Your task to perform on an android device: delete browsing data in the chrome app Image 0: 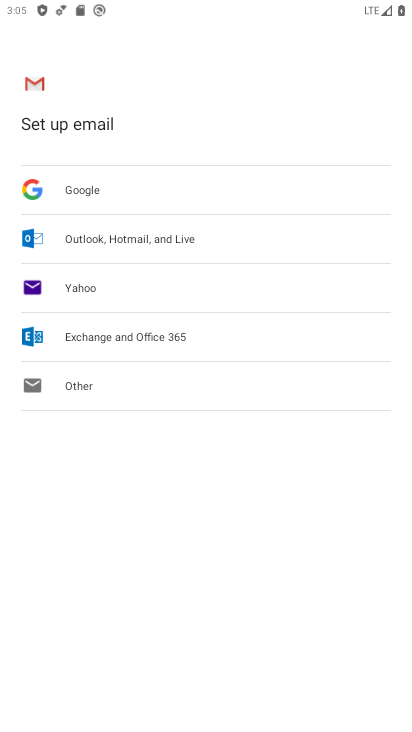
Step 0: press home button
Your task to perform on an android device: delete browsing data in the chrome app Image 1: 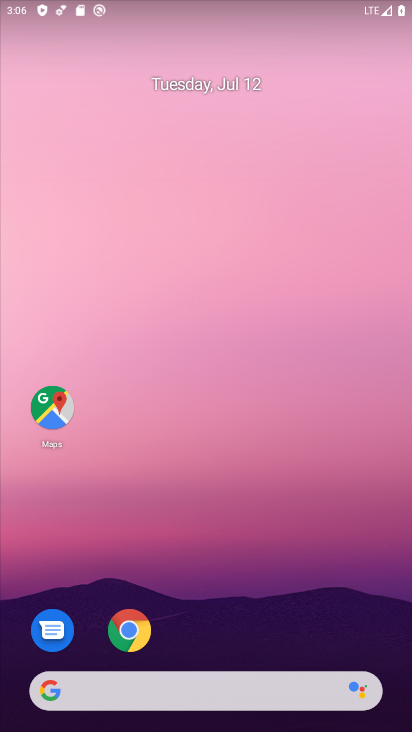
Step 1: click (145, 629)
Your task to perform on an android device: delete browsing data in the chrome app Image 2: 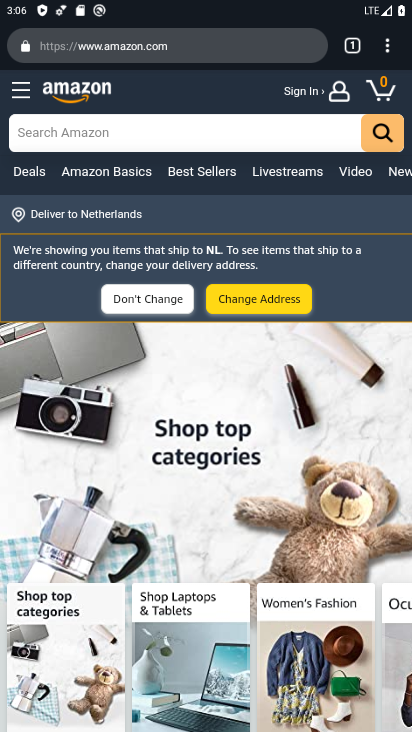
Step 2: click (394, 36)
Your task to perform on an android device: delete browsing data in the chrome app Image 3: 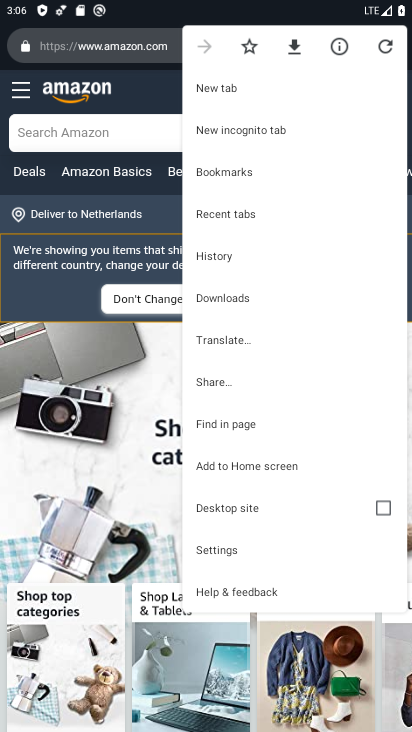
Step 3: click (218, 252)
Your task to perform on an android device: delete browsing data in the chrome app Image 4: 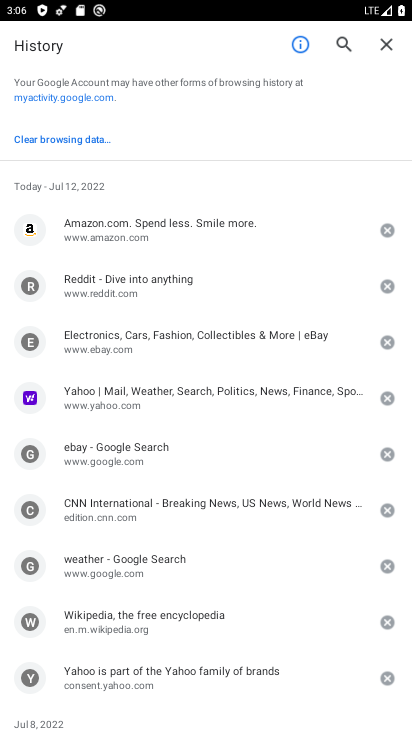
Step 4: click (91, 142)
Your task to perform on an android device: delete browsing data in the chrome app Image 5: 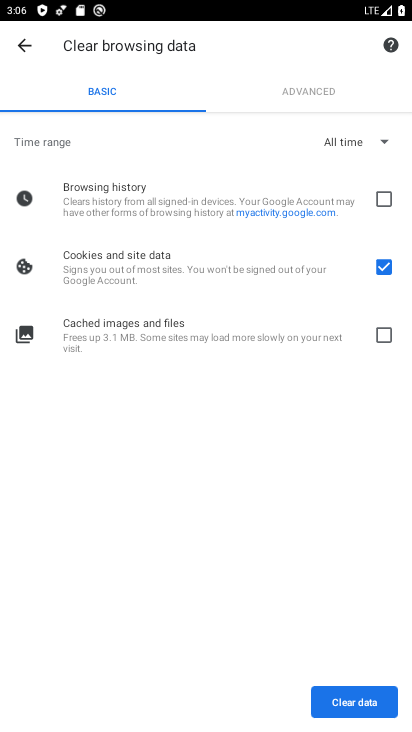
Step 5: click (381, 196)
Your task to perform on an android device: delete browsing data in the chrome app Image 6: 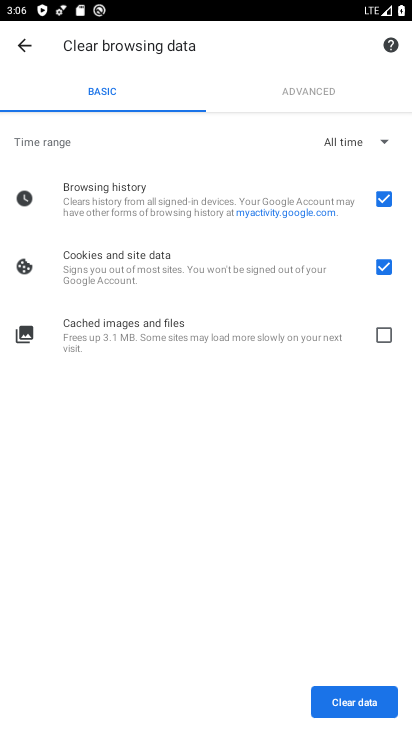
Step 6: click (385, 335)
Your task to perform on an android device: delete browsing data in the chrome app Image 7: 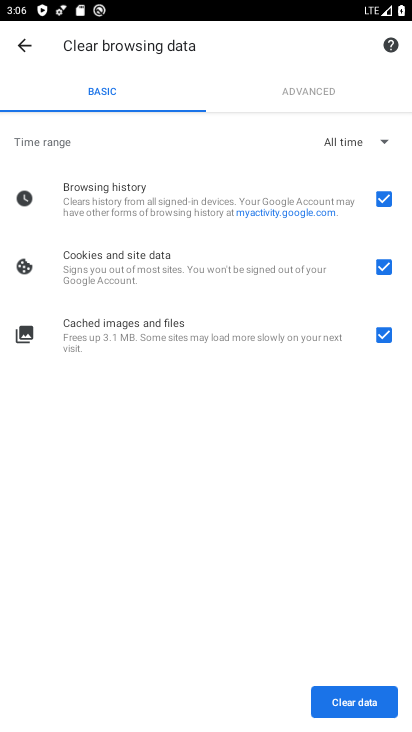
Step 7: click (344, 711)
Your task to perform on an android device: delete browsing data in the chrome app Image 8: 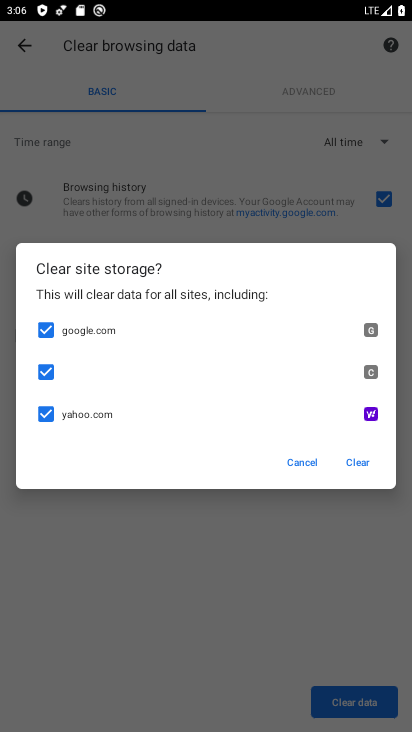
Step 8: click (357, 458)
Your task to perform on an android device: delete browsing data in the chrome app Image 9: 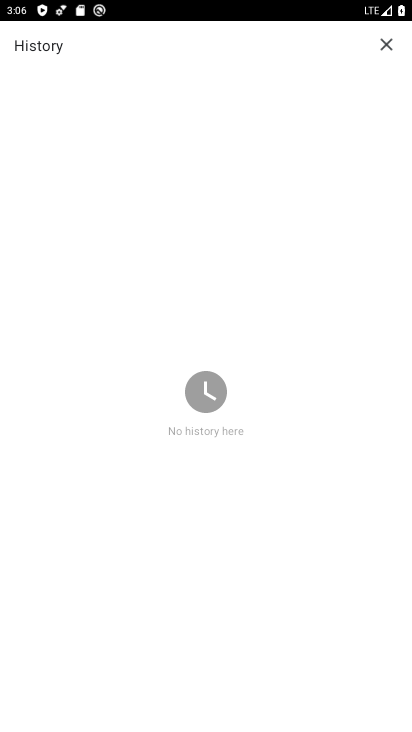
Step 9: task complete